Your task to perform on an android device: toggle notifications settings in the gmail app Image 0: 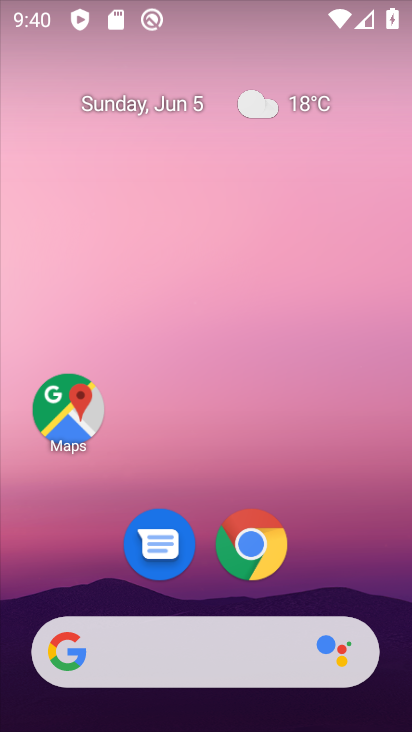
Step 0: task complete